Your task to perform on an android device: What's the weather today? Image 0: 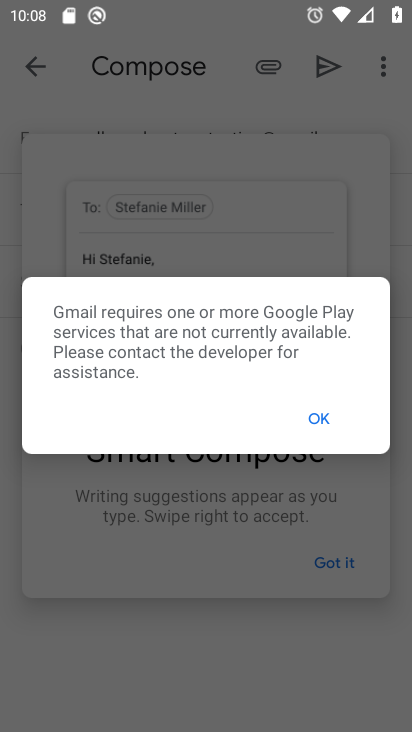
Step 0: press home button
Your task to perform on an android device: What's the weather today? Image 1: 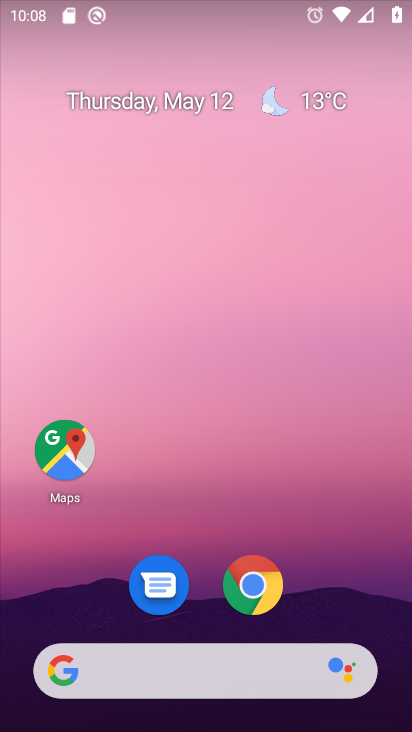
Step 1: click (298, 99)
Your task to perform on an android device: What's the weather today? Image 2: 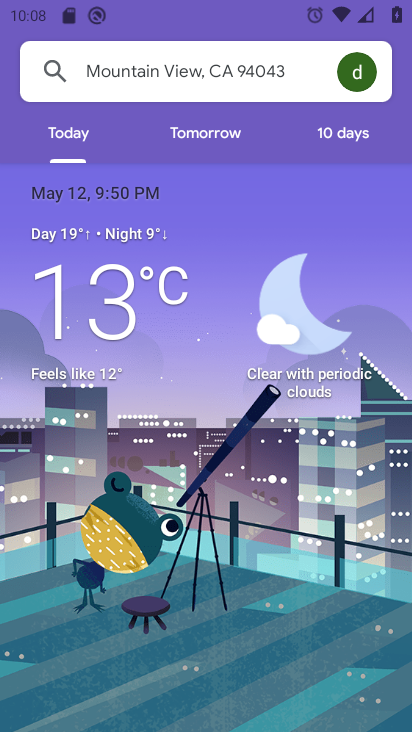
Step 2: task complete